Your task to perform on an android device: Open Chrome and go to settings Image 0: 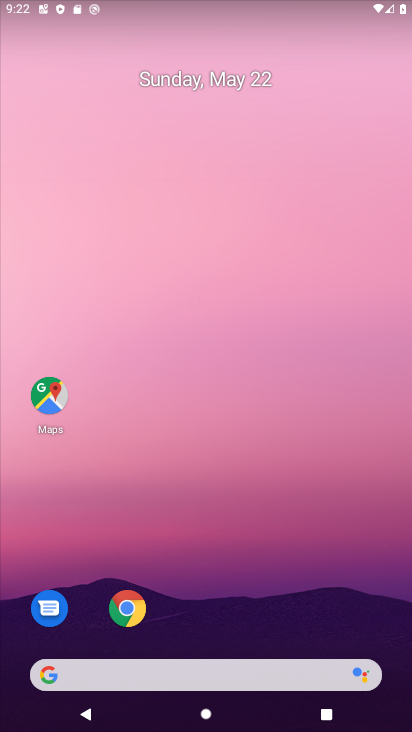
Step 0: drag from (292, 570) to (246, 149)
Your task to perform on an android device: Open Chrome and go to settings Image 1: 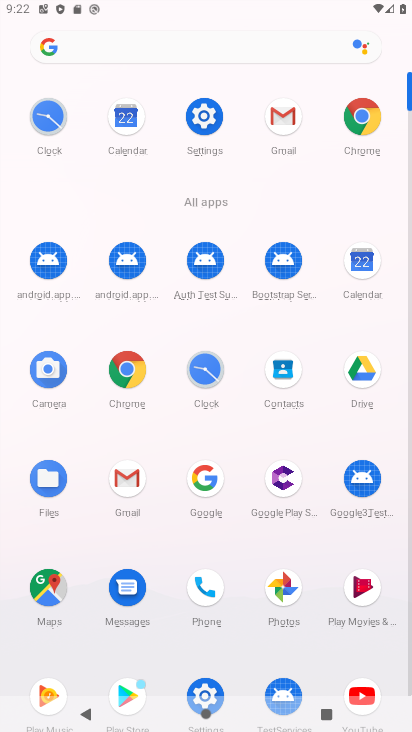
Step 1: click (361, 113)
Your task to perform on an android device: Open Chrome and go to settings Image 2: 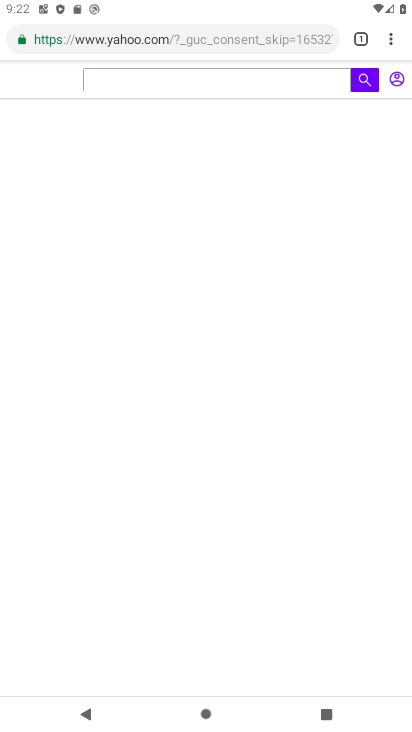
Step 2: task complete